Your task to perform on an android device: open the mobile data screen to see how much data has been used Image 0: 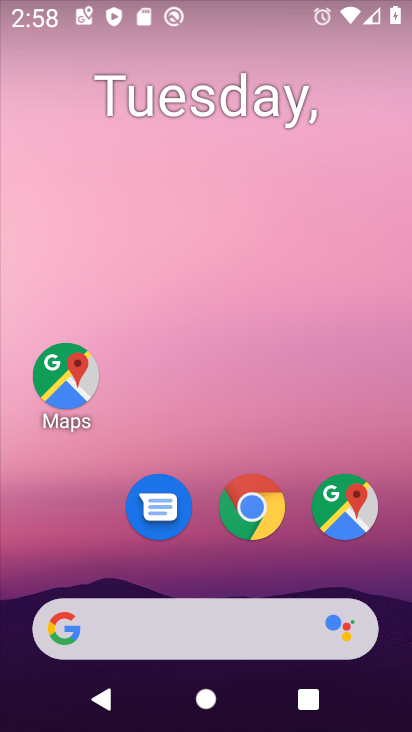
Step 0: drag from (224, 558) to (242, 197)
Your task to perform on an android device: open the mobile data screen to see how much data has been used Image 1: 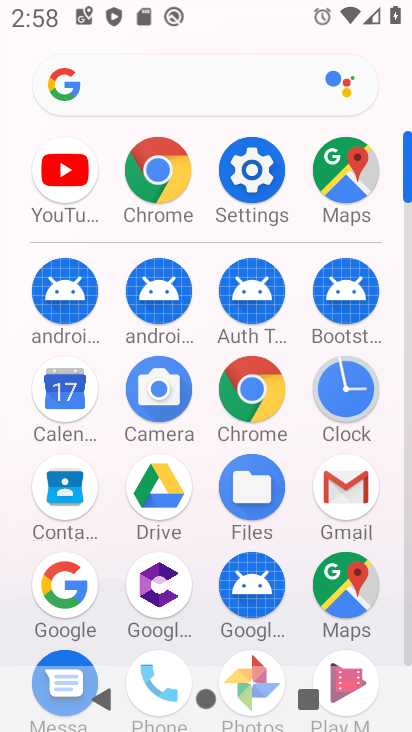
Step 1: click (246, 161)
Your task to perform on an android device: open the mobile data screen to see how much data has been used Image 2: 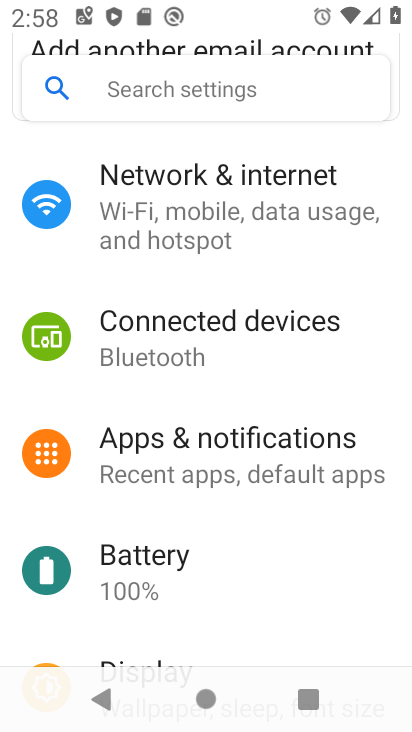
Step 2: click (144, 217)
Your task to perform on an android device: open the mobile data screen to see how much data has been used Image 3: 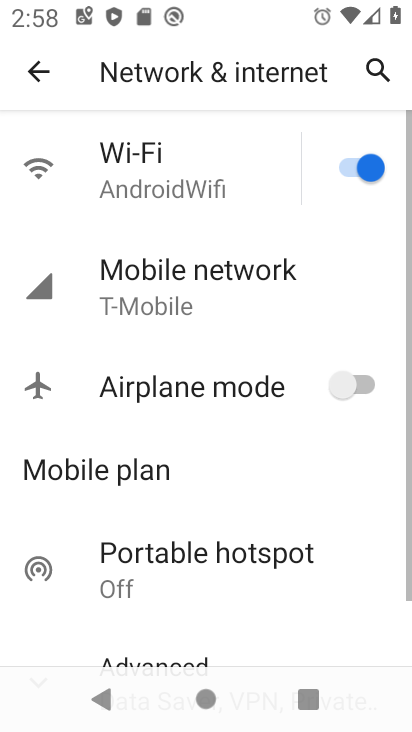
Step 3: click (145, 285)
Your task to perform on an android device: open the mobile data screen to see how much data has been used Image 4: 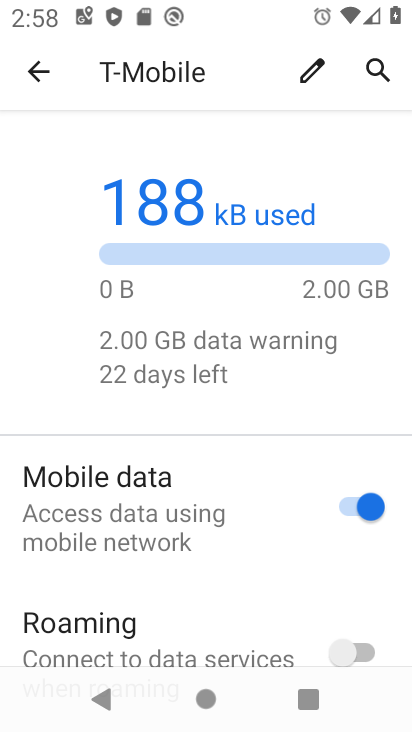
Step 4: drag from (194, 594) to (213, 465)
Your task to perform on an android device: open the mobile data screen to see how much data has been used Image 5: 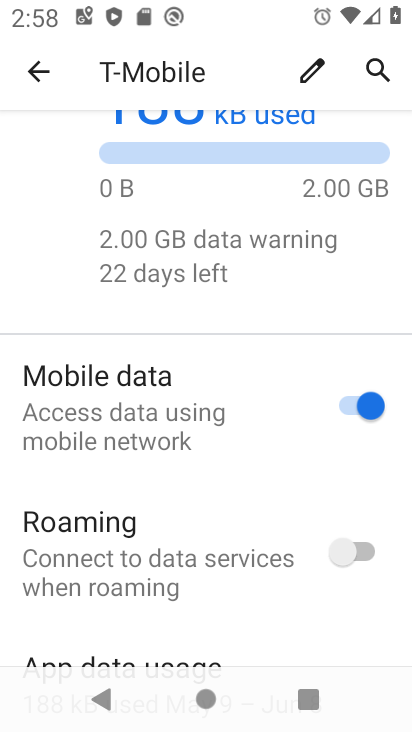
Step 5: click (176, 406)
Your task to perform on an android device: open the mobile data screen to see how much data has been used Image 6: 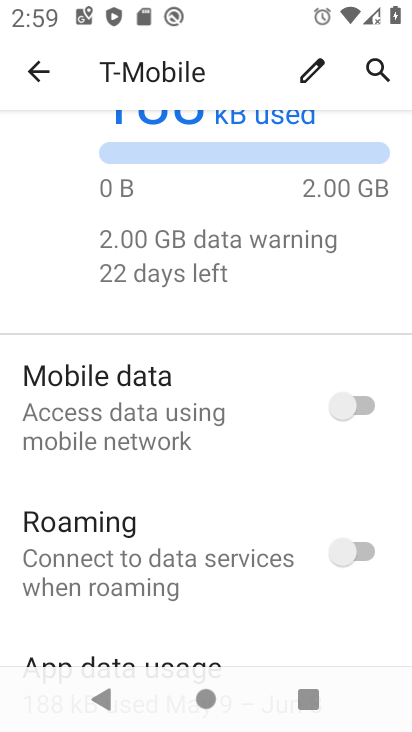
Step 6: task complete